Your task to perform on an android device: add a label to a message in the gmail app Image 0: 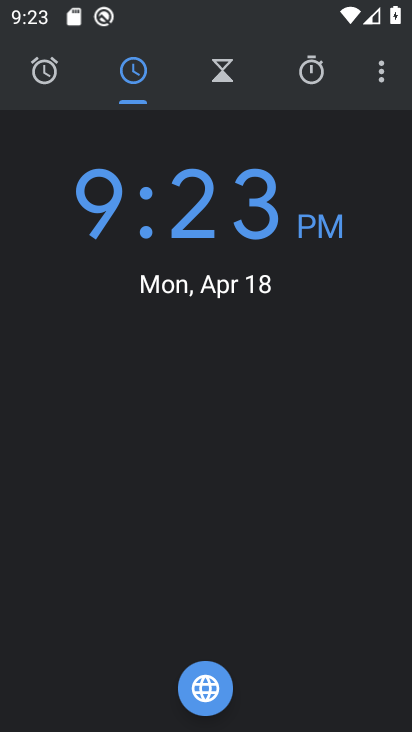
Step 0: press home button
Your task to perform on an android device: add a label to a message in the gmail app Image 1: 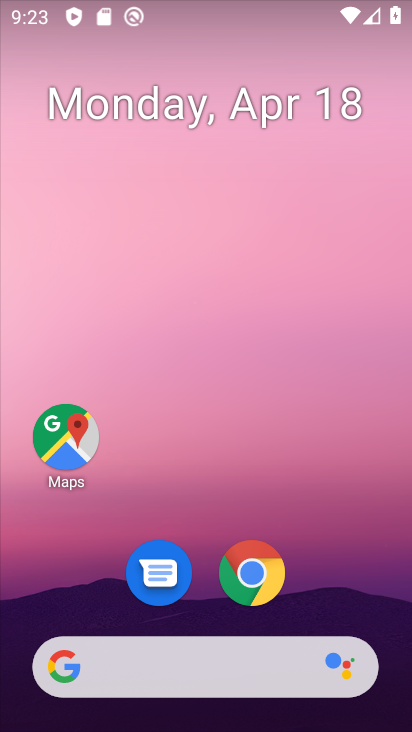
Step 1: drag from (338, 338) to (295, 101)
Your task to perform on an android device: add a label to a message in the gmail app Image 2: 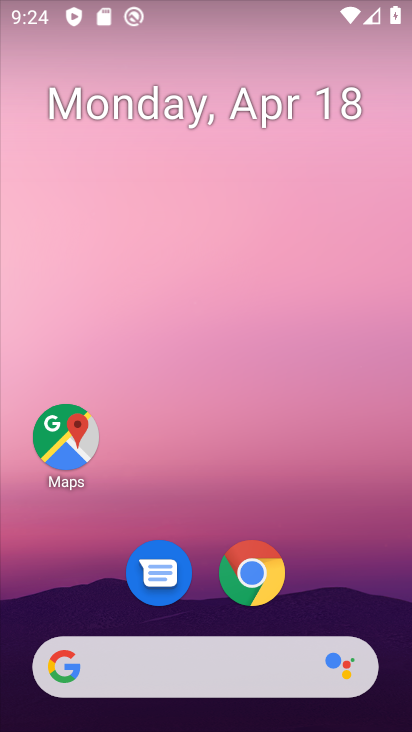
Step 2: drag from (331, 561) to (306, 126)
Your task to perform on an android device: add a label to a message in the gmail app Image 3: 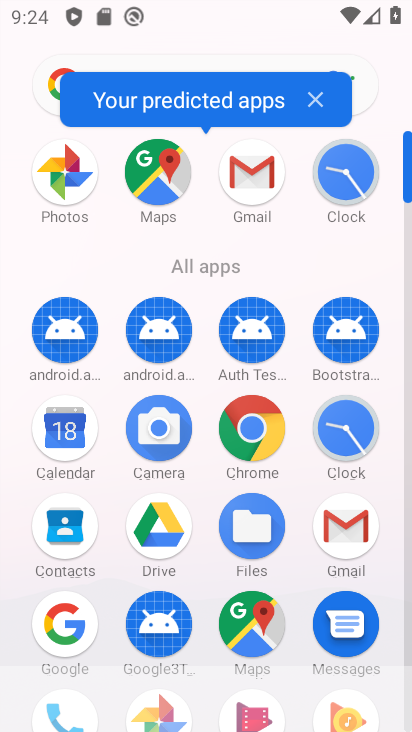
Step 3: click (345, 541)
Your task to perform on an android device: add a label to a message in the gmail app Image 4: 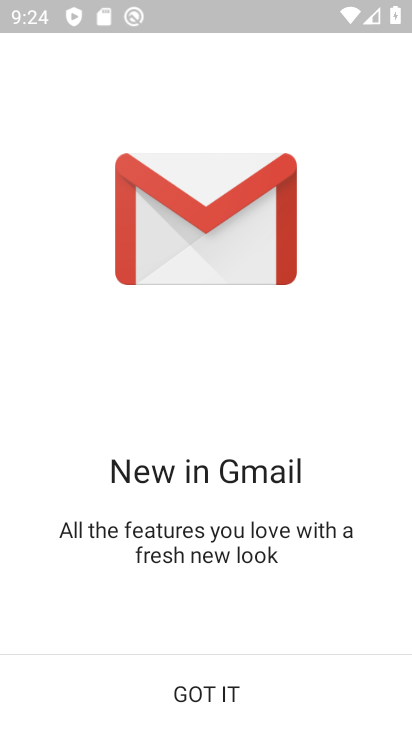
Step 4: click (233, 694)
Your task to perform on an android device: add a label to a message in the gmail app Image 5: 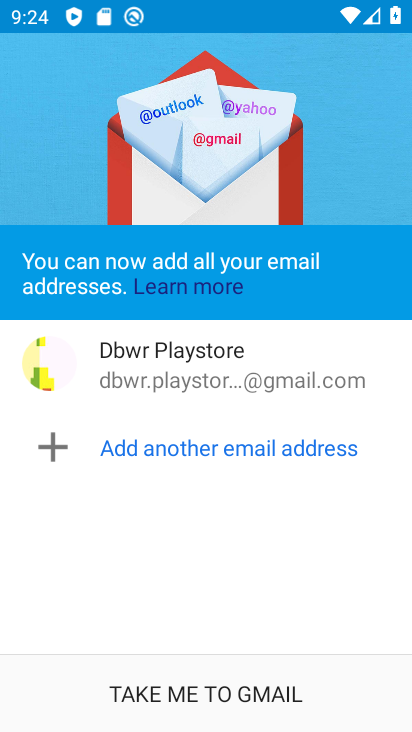
Step 5: click (233, 694)
Your task to perform on an android device: add a label to a message in the gmail app Image 6: 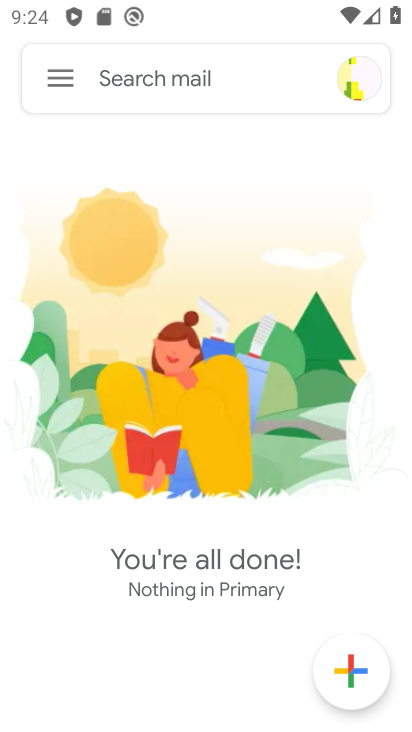
Step 6: click (62, 68)
Your task to perform on an android device: add a label to a message in the gmail app Image 7: 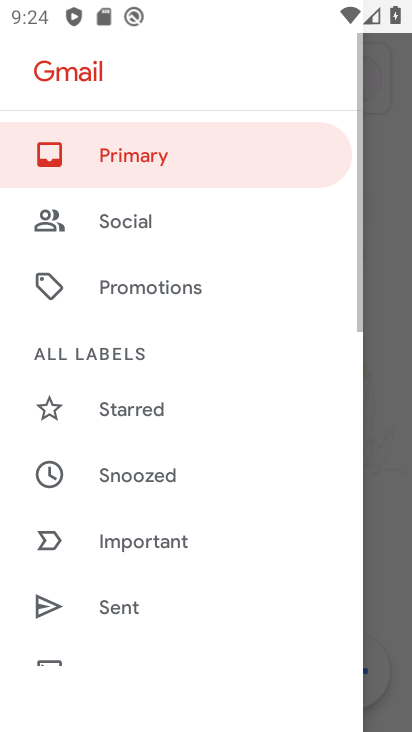
Step 7: click (391, 300)
Your task to perform on an android device: add a label to a message in the gmail app Image 8: 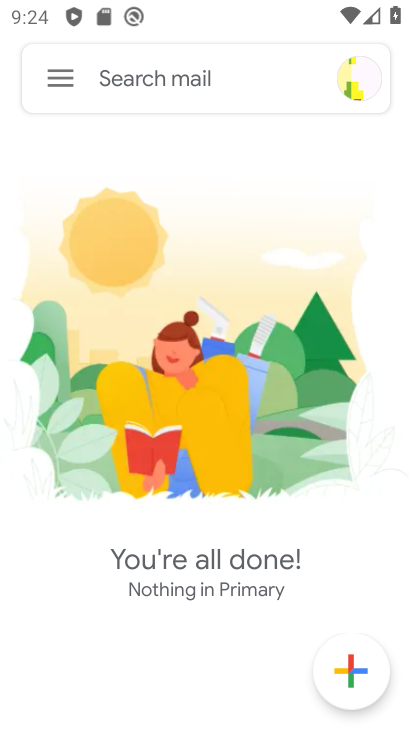
Step 8: task complete